Your task to perform on an android device: Go to settings Image 0: 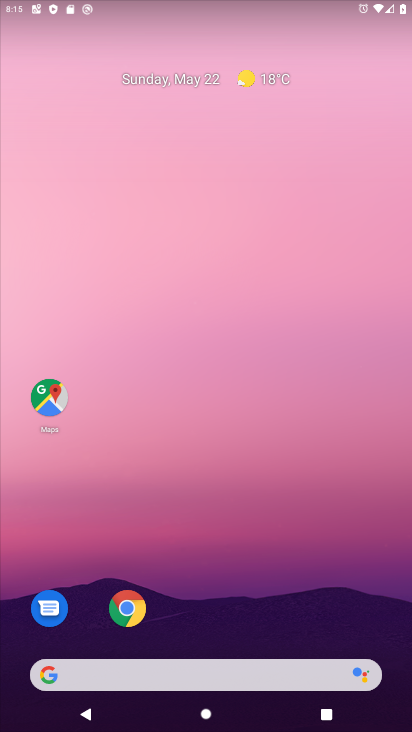
Step 0: drag from (222, 712) to (241, 32)
Your task to perform on an android device: Go to settings Image 1: 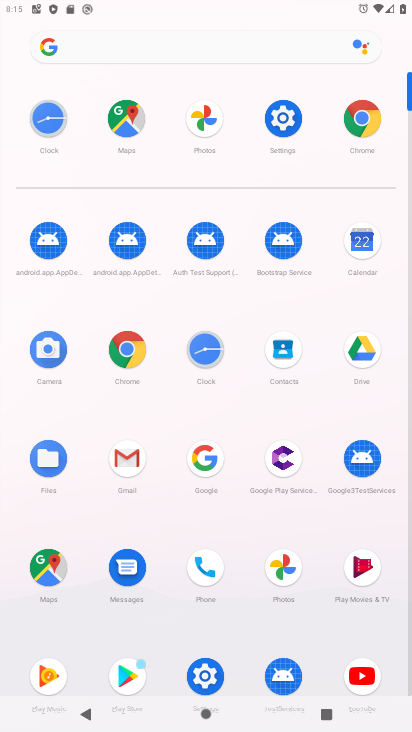
Step 1: click (203, 671)
Your task to perform on an android device: Go to settings Image 2: 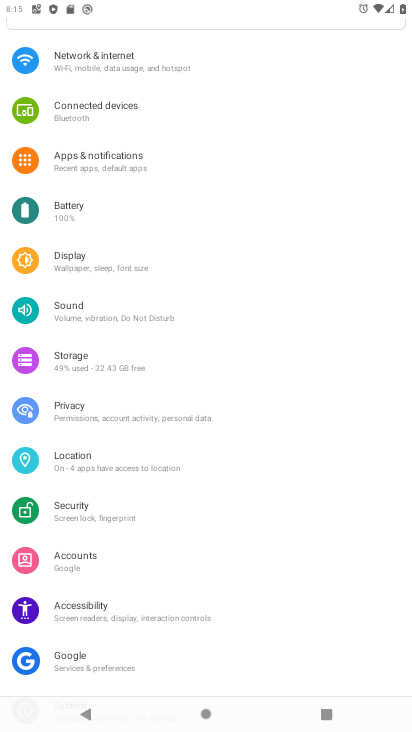
Step 2: task complete